Your task to perform on an android device: change the upload size in google photos Image 0: 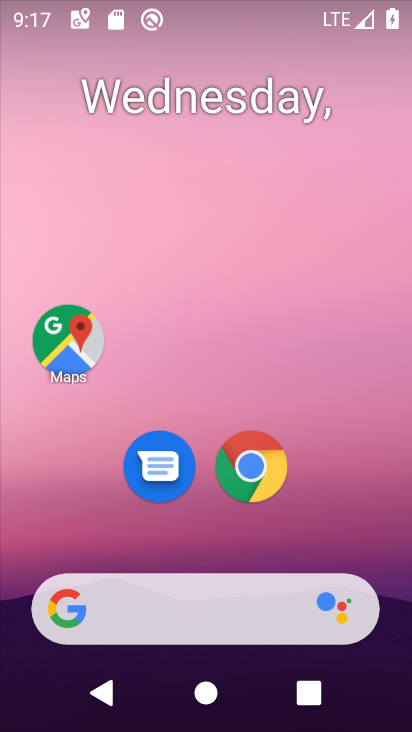
Step 0: drag from (236, 723) to (246, 148)
Your task to perform on an android device: change the upload size in google photos Image 1: 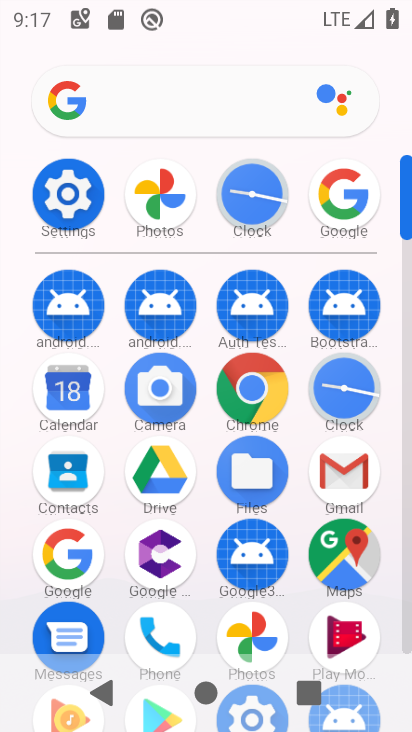
Step 1: click (254, 629)
Your task to perform on an android device: change the upload size in google photos Image 2: 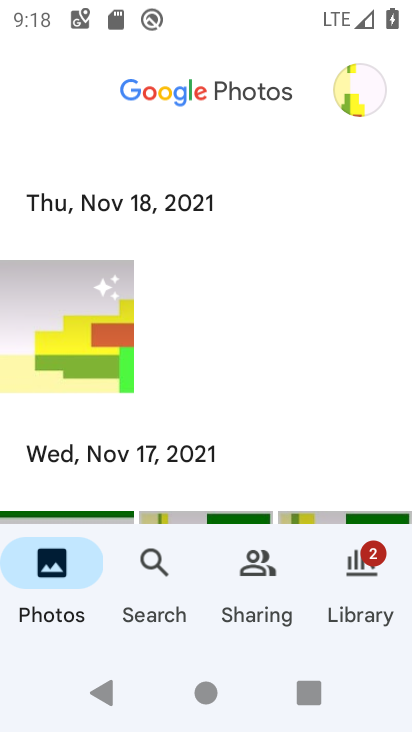
Step 2: click (363, 82)
Your task to perform on an android device: change the upload size in google photos Image 3: 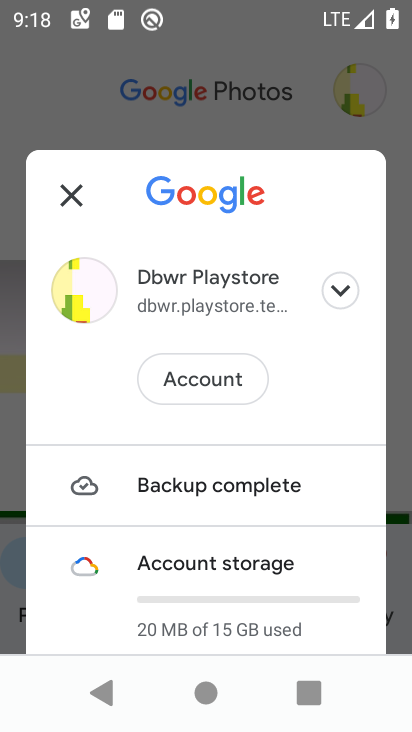
Step 3: drag from (128, 608) to (148, 318)
Your task to perform on an android device: change the upload size in google photos Image 4: 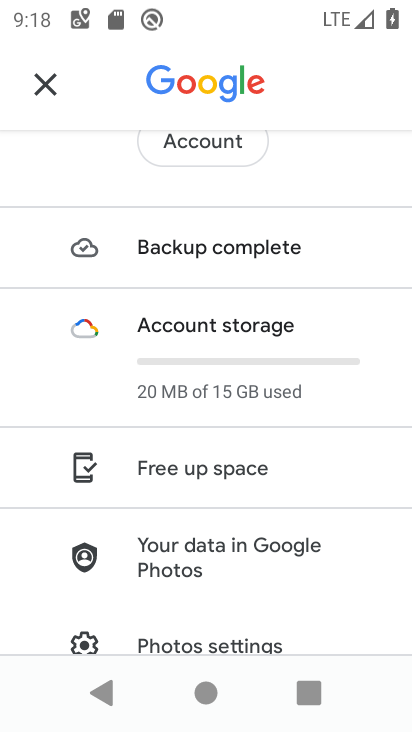
Step 4: click (161, 636)
Your task to perform on an android device: change the upload size in google photos Image 5: 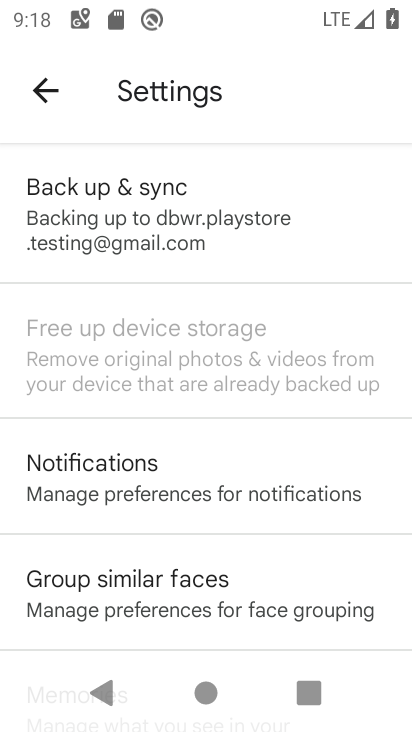
Step 5: click (89, 216)
Your task to perform on an android device: change the upload size in google photos Image 6: 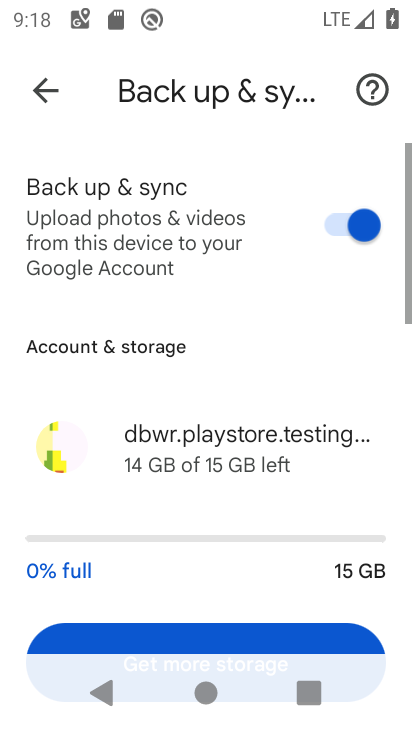
Step 6: drag from (101, 601) to (106, 243)
Your task to perform on an android device: change the upload size in google photos Image 7: 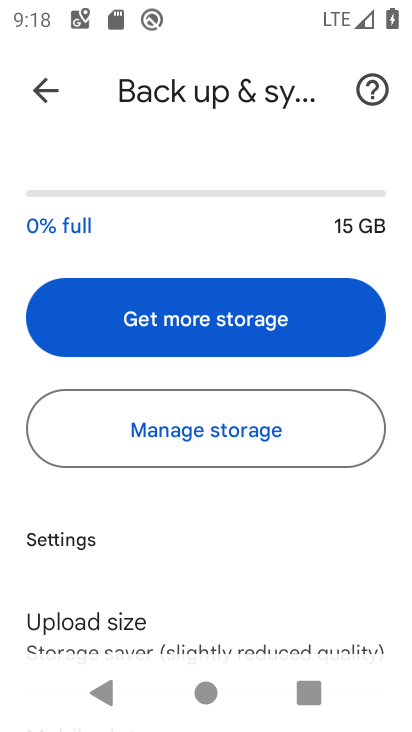
Step 7: drag from (107, 608) to (109, 348)
Your task to perform on an android device: change the upload size in google photos Image 8: 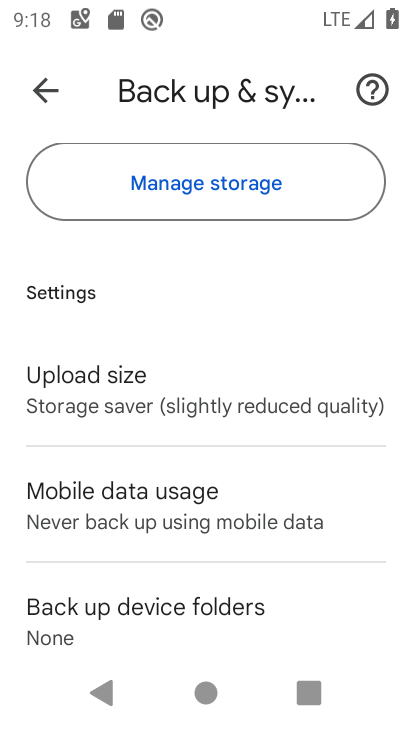
Step 8: click (94, 397)
Your task to perform on an android device: change the upload size in google photos Image 9: 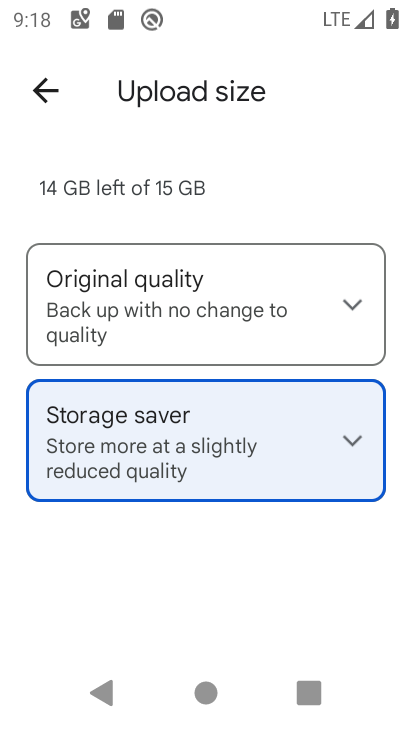
Step 9: click (72, 290)
Your task to perform on an android device: change the upload size in google photos Image 10: 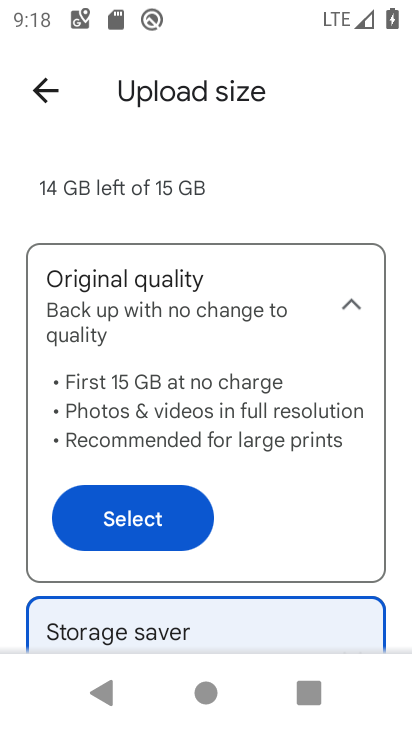
Step 10: click (123, 526)
Your task to perform on an android device: change the upload size in google photos Image 11: 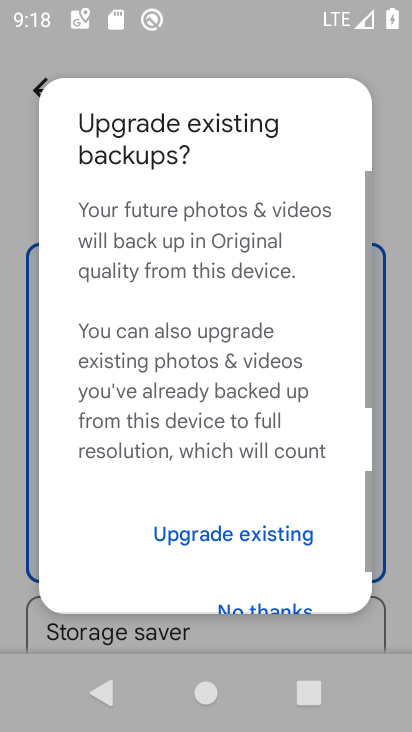
Step 11: click (265, 603)
Your task to perform on an android device: change the upload size in google photos Image 12: 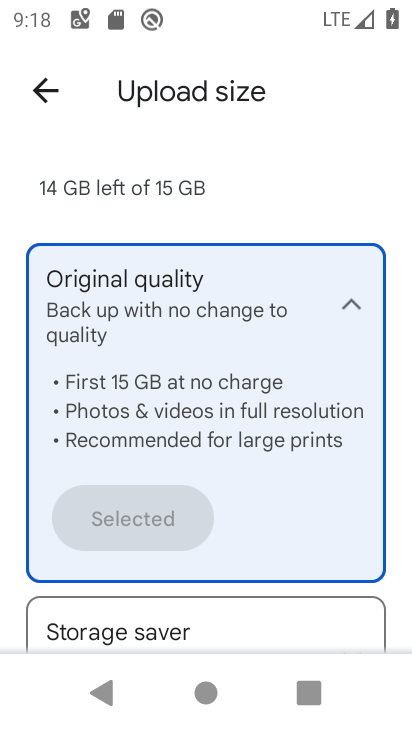
Step 12: task complete